Your task to perform on an android device: Check the weather Image 0: 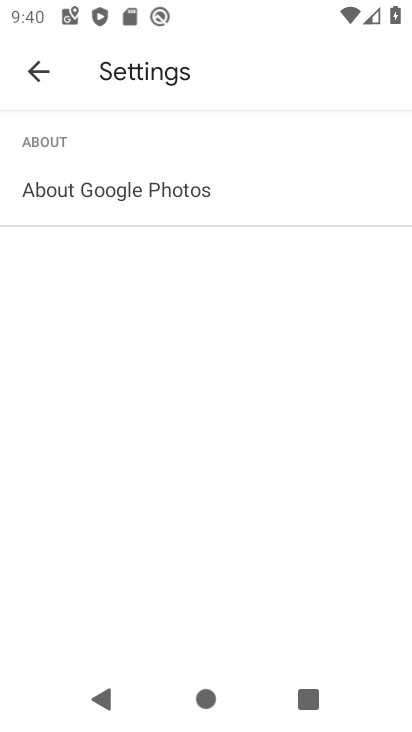
Step 0: press home button
Your task to perform on an android device: Check the weather Image 1: 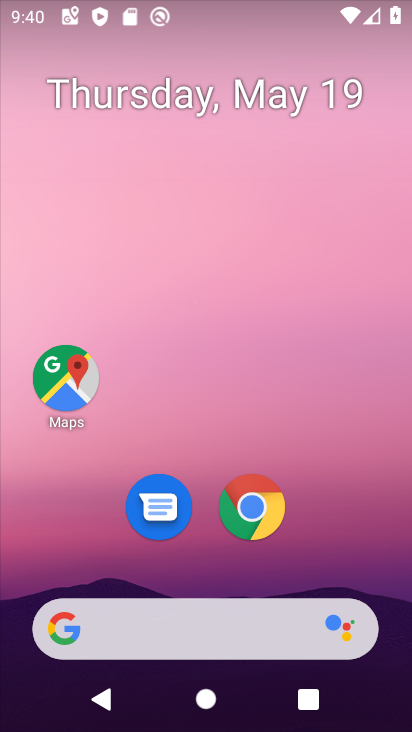
Step 1: drag from (19, 176) to (401, 263)
Your task to perform on an android device: Check the weather Image 2: 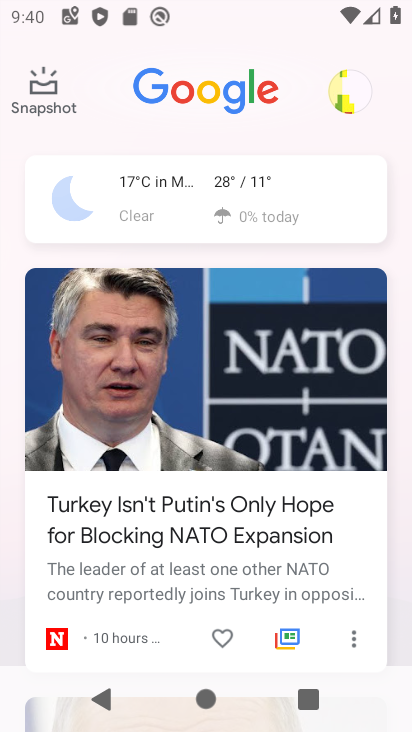
Step 2: click (230, 188)
Your task to perform on an android device: Check the weather Image 3: 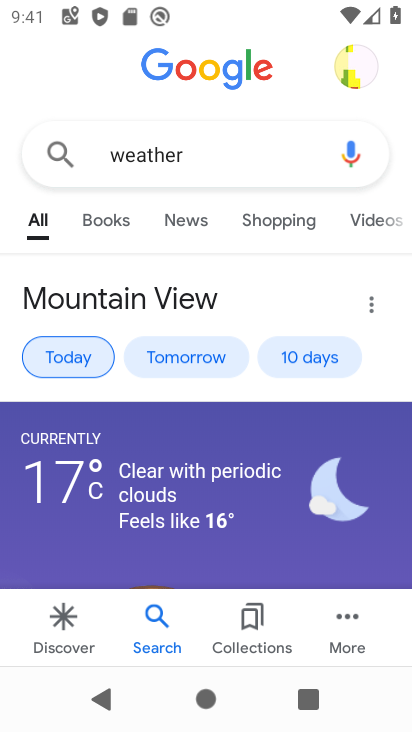
Step 3: task complete